Your task to perform on an android device: set an alarm Image 0: 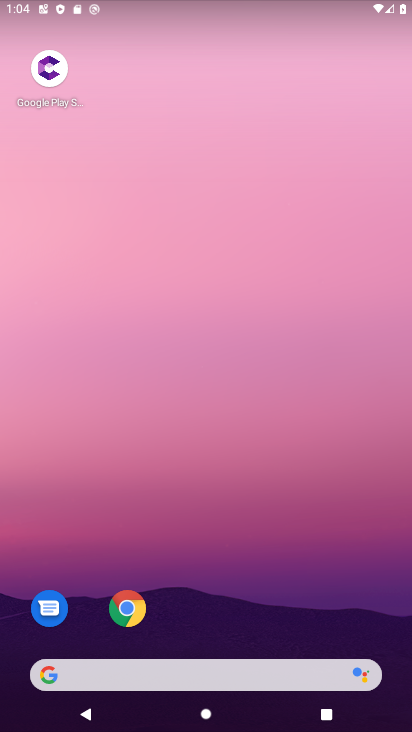
Step 0: drag from (233, 569) to (245, 147)
Your task to perform on an android device: set an alarm Image 1: 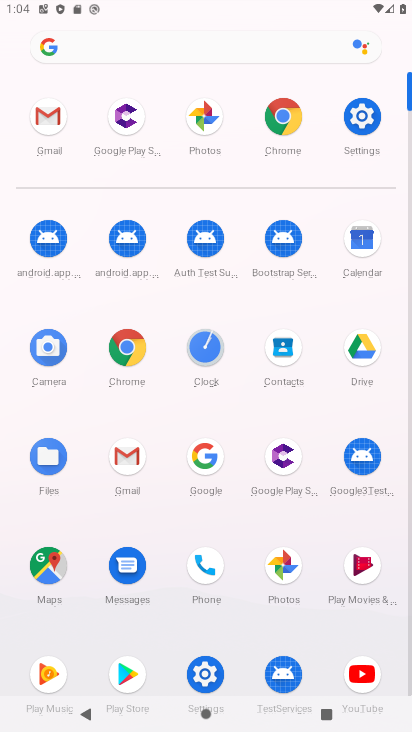
Step 1: click (200, 352)
Your task to perform on an android device: set an alarm Image 2: 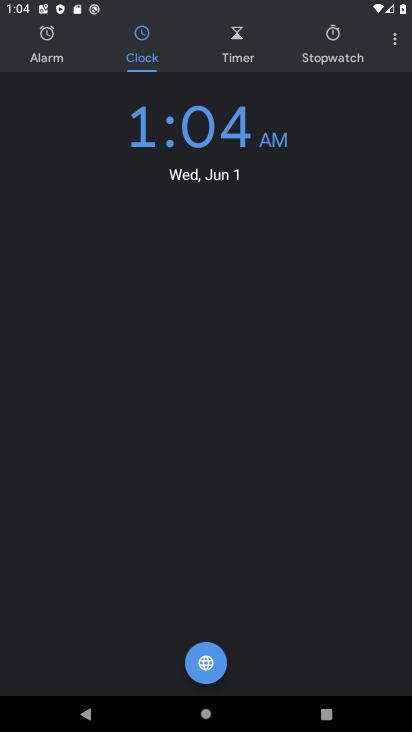
Step 2: click (62, 53)
Your task to perform on an android device: set an alarm Image 3: 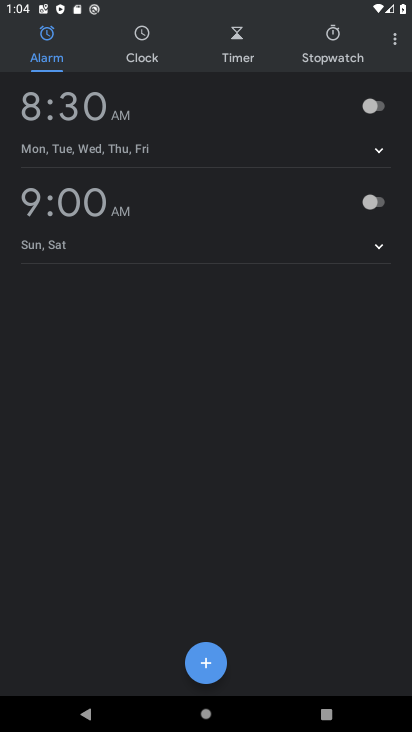
Step 3: click (367, 97)
Your task to perform on an android device: set an alarm Image 4: 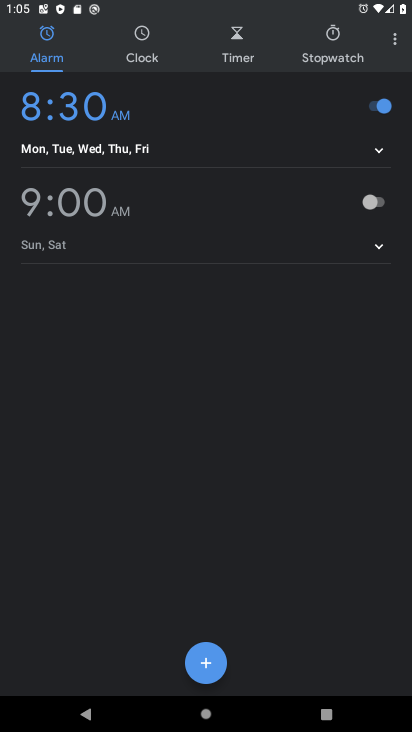
Step 4: task complete